Your task to perform on an android device: see sites visited before in the chrome app Image 0: 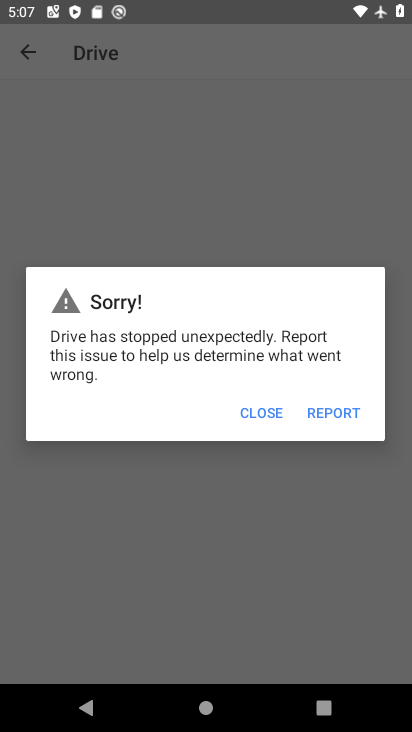
Step 0: click (243, 407)
Your task to perform on an android device: see sites visited before in the chrome app Image 1: 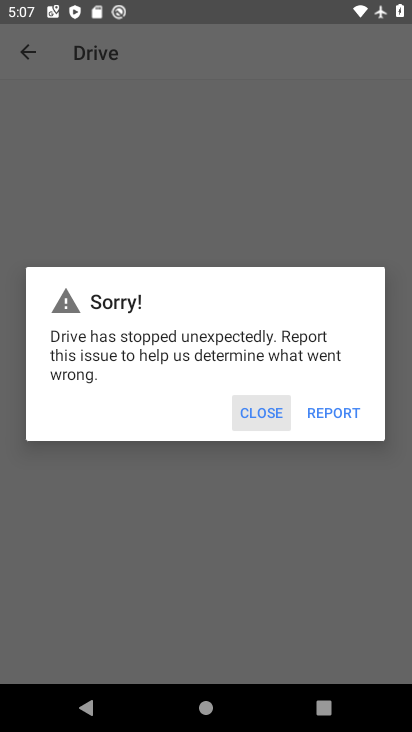
Step 1: click (252, 421)
Your task to perform on an android device: see sites visited before in the chrome app Image 2: 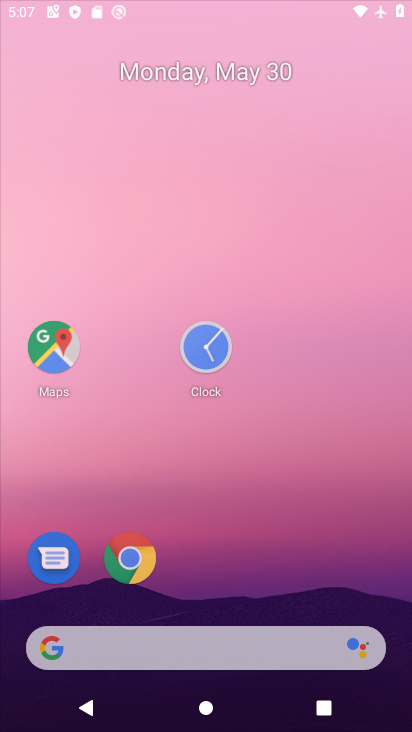
Step 2: click (252, 422)
Your task to perform on an android device: see sites visited before in the chrome app Image 3: 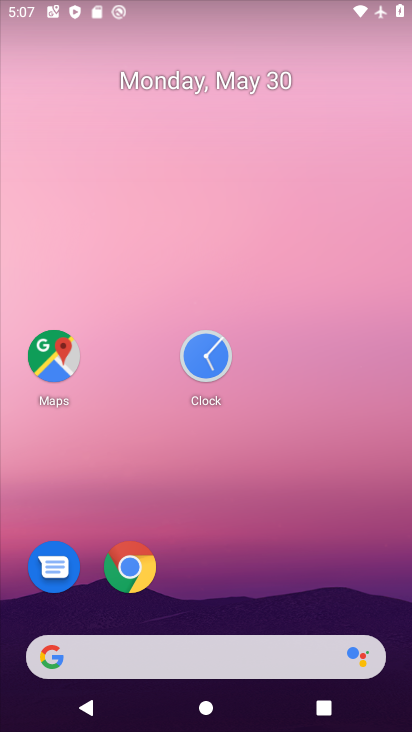
Step 3: drag from (295, 669) to (206, 135)
Your task to perform on an android device: see sites visited before in the chrome app Image 4: 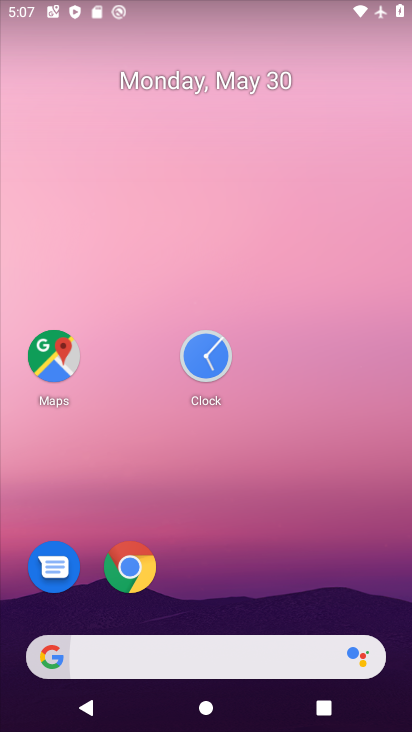
Step 4: drag from (290, 518) to (208, 31)
Your task to perform on an android device: see sites visited before in the chrome app Image 5: 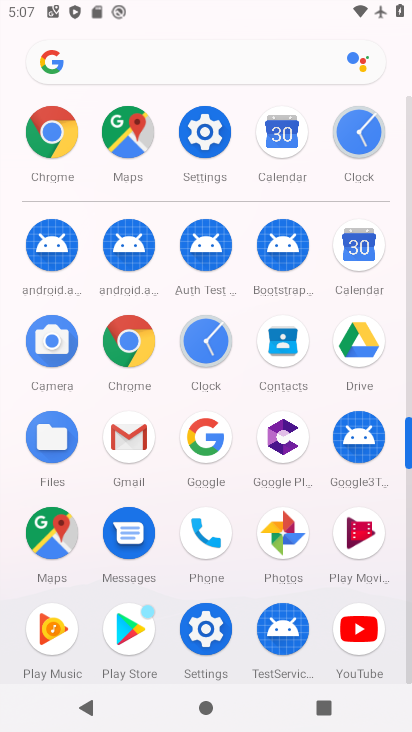
Step 5: click (135, 353)
Your task to perform on an android device: see sites visited before in the chrome app Image 6: 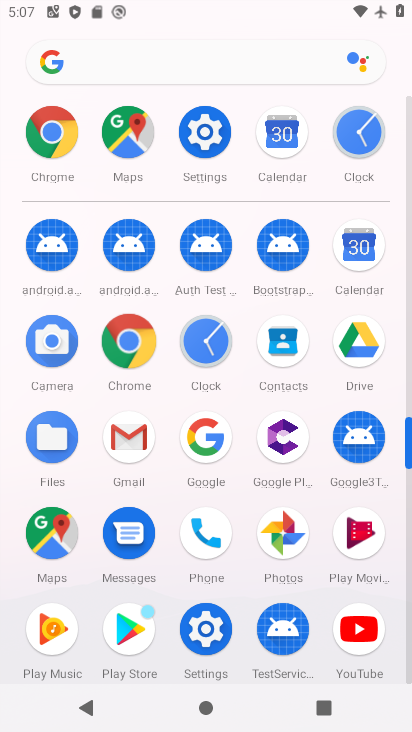
Step 6: click (133, 351)
Your task to perform on an android device: see sites visited before in the chrome app Image 7: 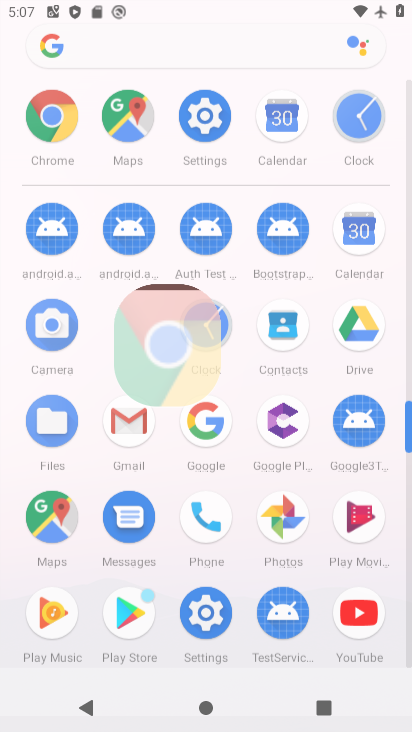
Step 7: click (133, 351)
Your task to perform on an android device: see sites visited before in the chrome app Image 8: 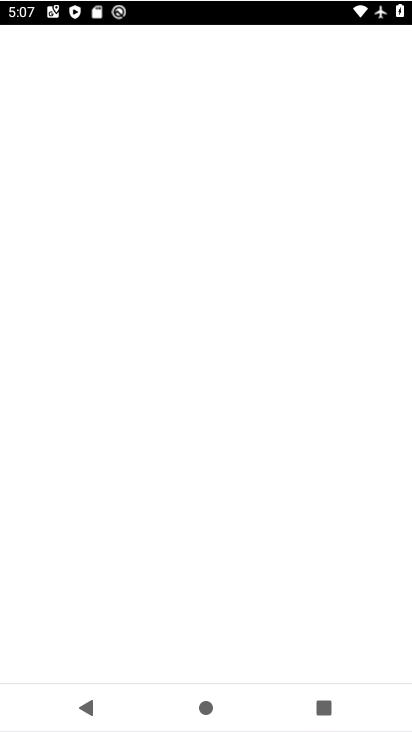
Step 8: click (133, 351)
Your task to perform on an android device: see sites visited before in the chrome app Image 9: 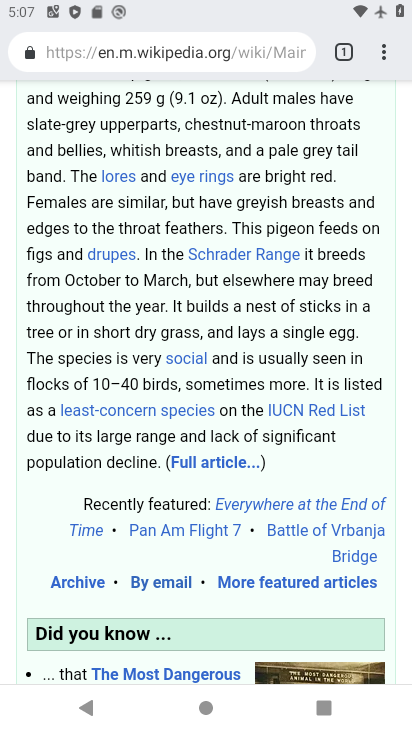
Step 9: drag from (184, 559) to (184, 245)
Your task to perform on an android device: see sites visited before in the chrome app Image 10: 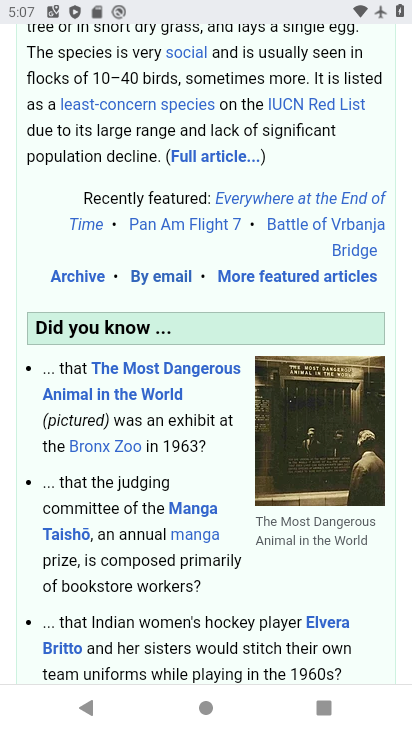
Step 10: drag from (263, 120) to (262, 403)
Your task to perform on an android device: see sites visited before in the chrome app Image 11: 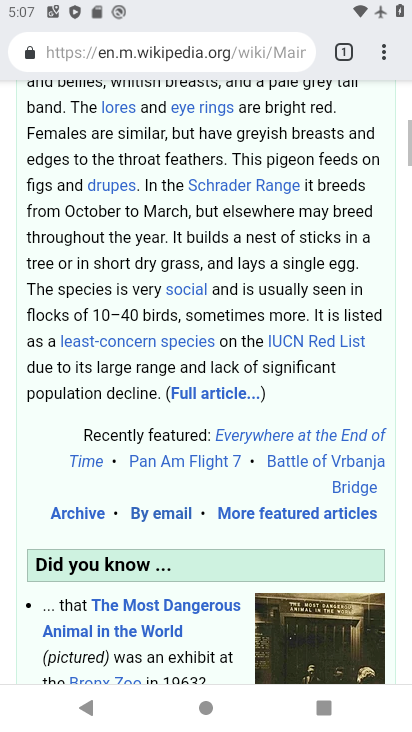
Step 11: drag from (216, 261) to (193, 507)
Your task to perform on an android device: see sites visited before in the chrome app Image 12: 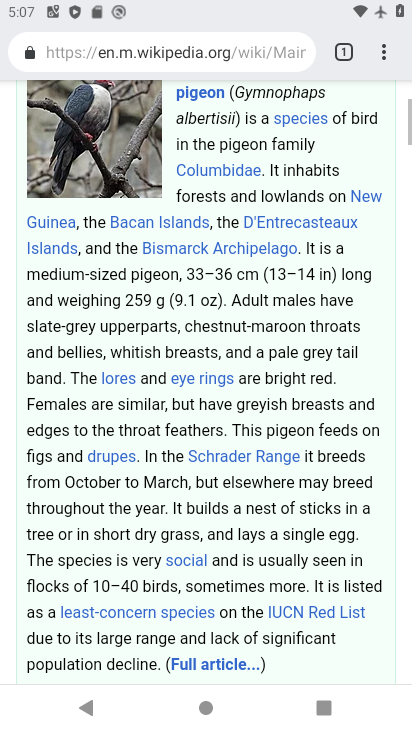
Step 12: drag from (162, 275) to (197, 486)
Your task to perform on an android device: see sites visited before in the chrome app Image 13: 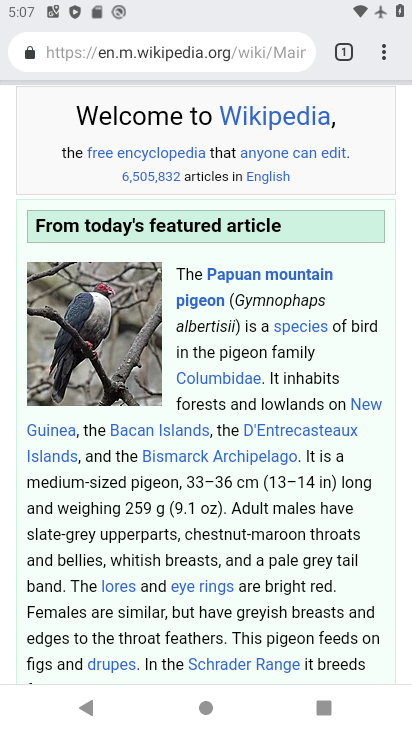
Step 13: drag from (381, 58) to (204, 238)
Your task to perform on an android device: see sites visited before in the chrome app Image 14: 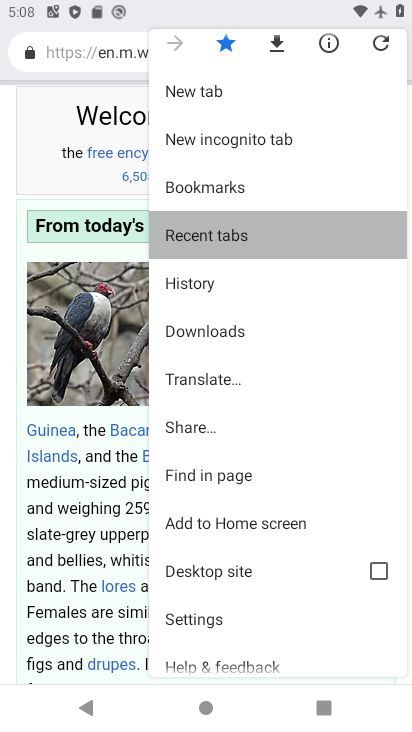
Step 14: click (204, 238)
Your task to perform on an android device: see sites visited before in the chrome app Image 15: 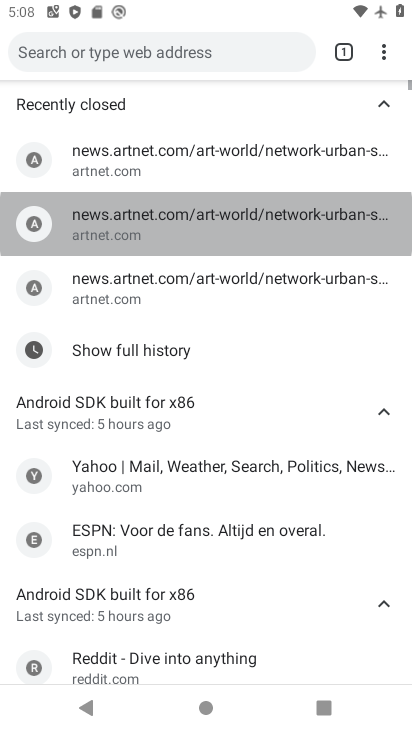
Step 15: click (206, 236)
Your task to perform on an android device: see sites visited before in the chrome app Image 16: 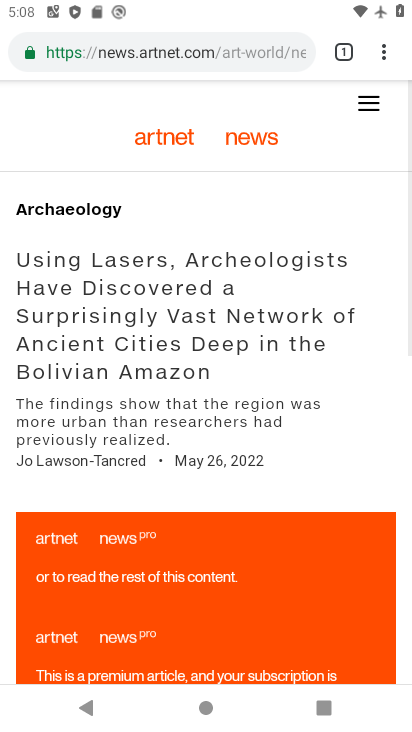
Step 16: task complete